Your task to perform on an android device: Search for pizza restaurants on Maps Image 0: 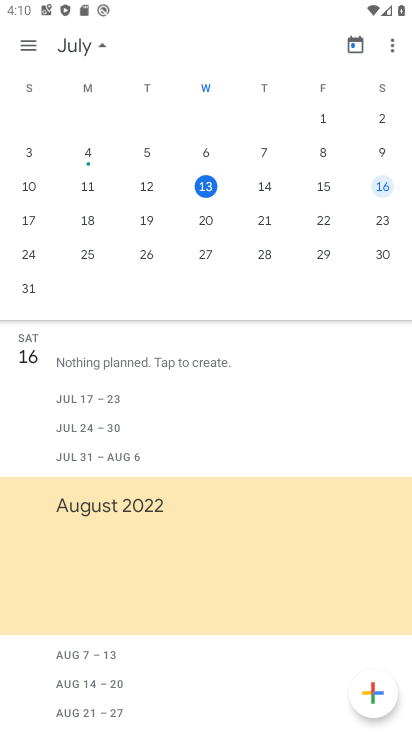
Step 0: press home button
Your task to perform on an android device: Search for pizza restaurants on Maps Image 1: 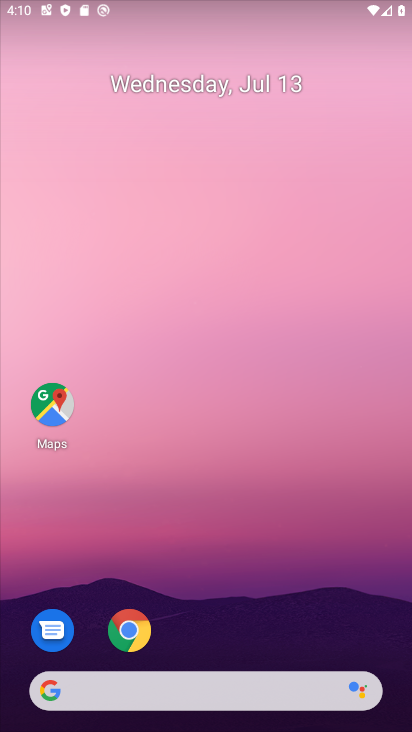
Step 1: drag from (214, 689) to (346, 42)
Your task to perform on an android device: Search for pizza restaurants on Maps Image 2: 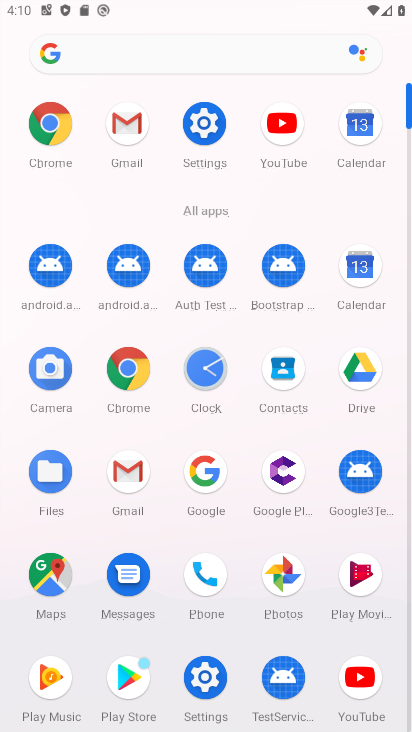
Step 2: click (38, 581)
Your task to perform on an android device: Search for pizza restaurants on Maps Image 3: 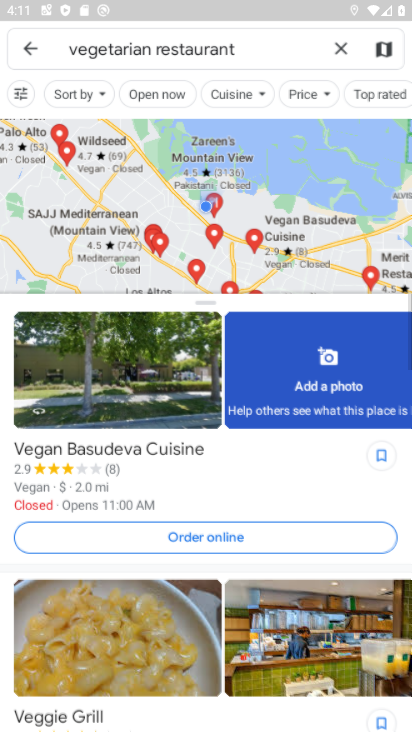
Step 3: click (343, 44)
Your task to perform on an android device: Search for pizza restaurants on Maps Image 4: 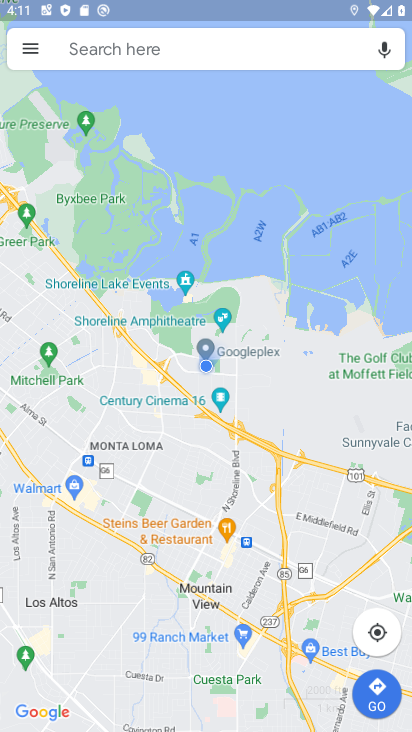
Step 4: click (174, 64)
Your task to perform on an android device: Search for pizza restaurants on Maps Image 5: 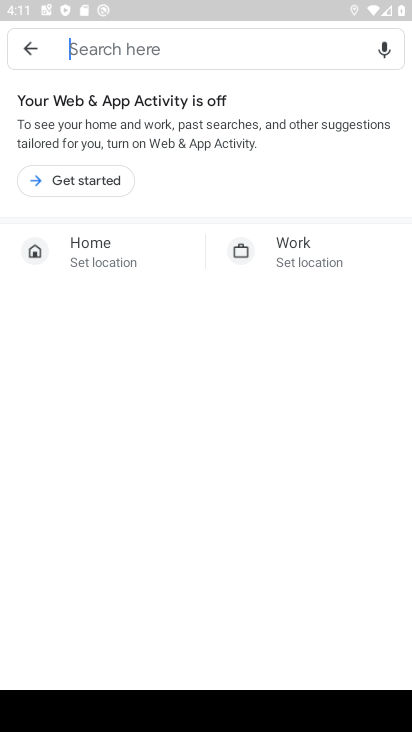
Step 5: type "pizza restaurant"
Your task to perform on an android device: Search for pizza restaurants on Maps Image 6: 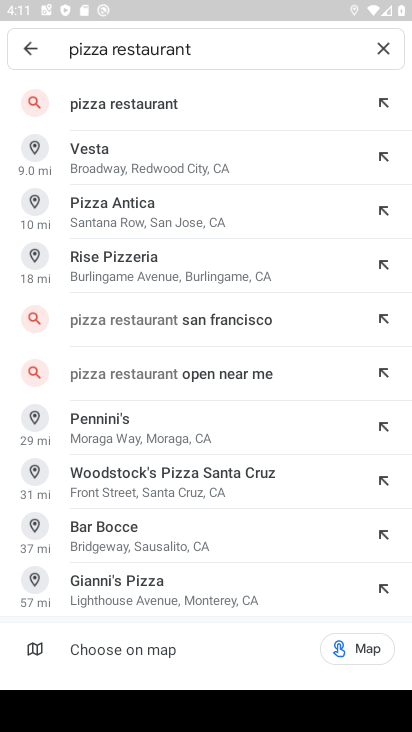
Step 6: click (176, 103)
Your task to perform on an android device: Search for pizza restaurants on Maps Image 7: 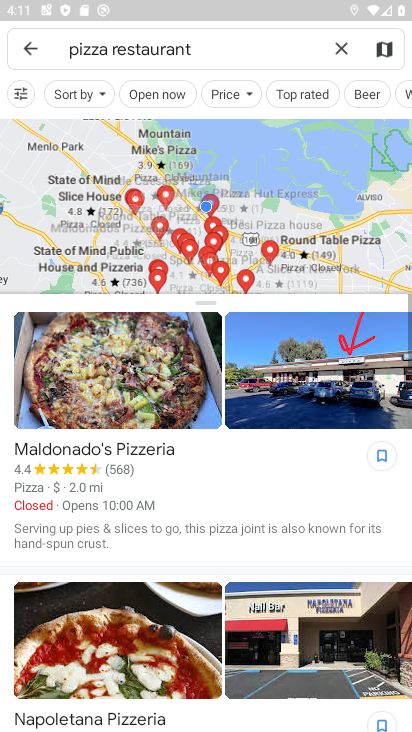
Step 7: task complete